Your task to perform on an android device: make emails show in primary in the gmail app Image 0: 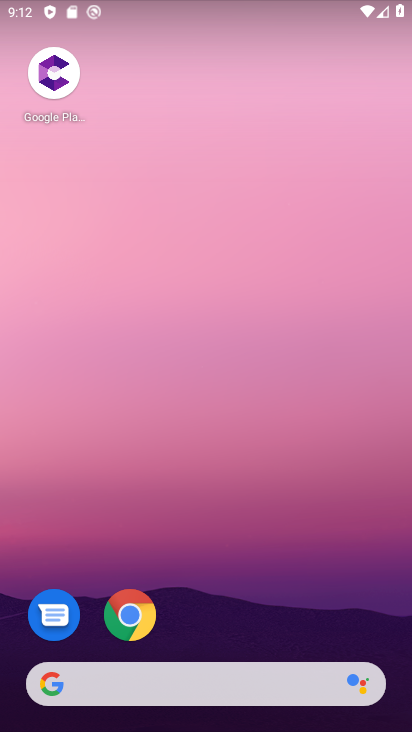
Step 0: drag from (229, 588) to (293, 73)
Your task to perform on an android device: make emails show in primary in the gmail app Image 1: 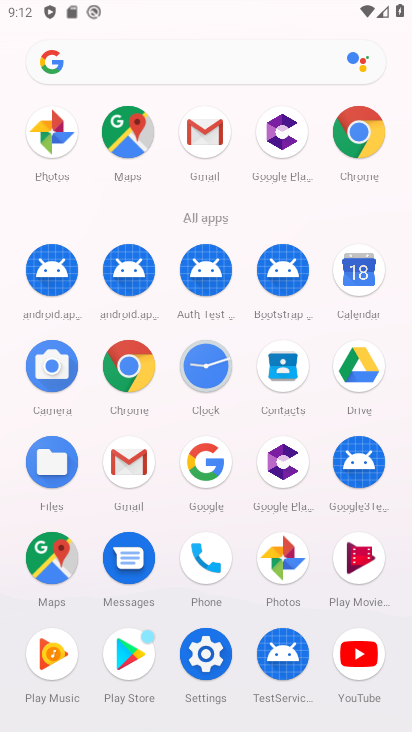
Step 1: click (195, 120)
Your task to perform on an android device: make emails show in primary in the gmail app Image 2: 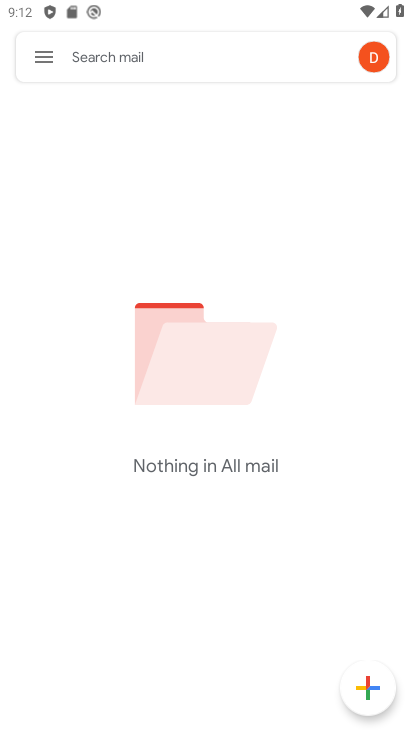
Step 2: click (45, 46)
Your task to perform on an android device: make emails show in primary in the gmail app Image 3: 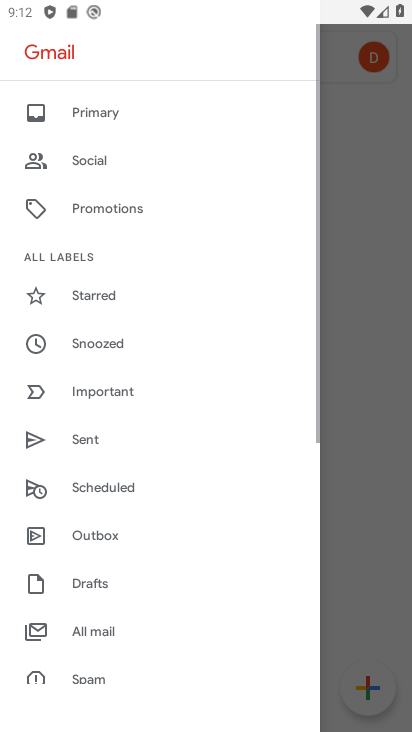
Step 3: drag from (121, 661) to (176, 157)
Your task to perform on an android device: make emails show in primary in the gmail app Image 4: 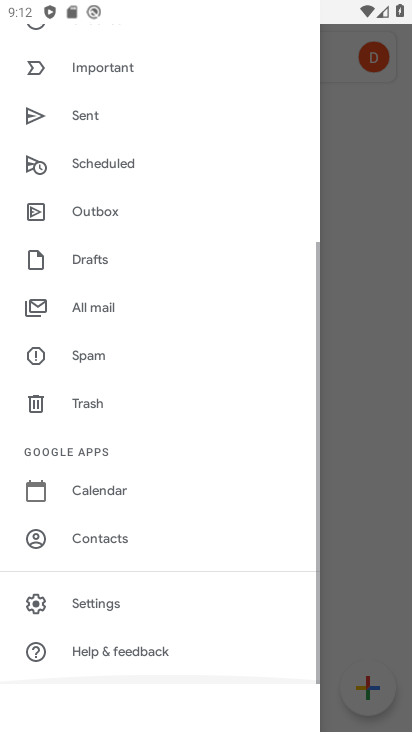
Step 4: click (93, 595)
Your task to perform on an android device: make emails show in primary in the gmail app Image 5: 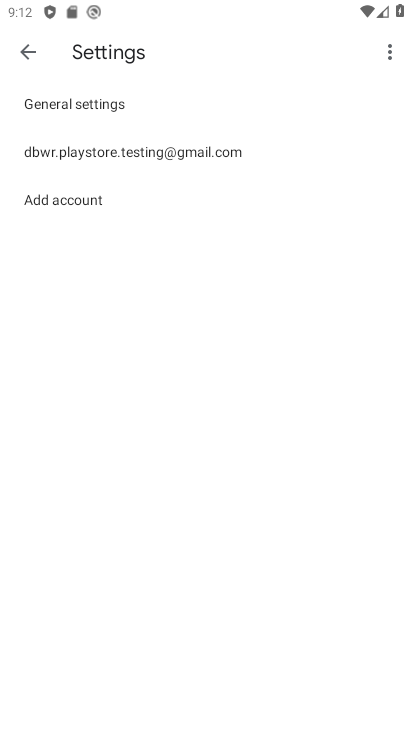
Step 5: click (104, 145)
Your task to perform on an android device: make emails show in primary in the gmail app Image 6: 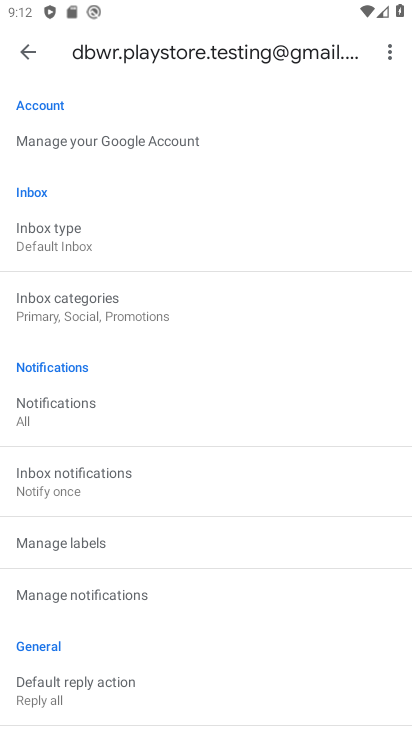
Step 6: click (78, 320)
Your task to perform on an android device: make emails show in primary in the gmail app Image 7: 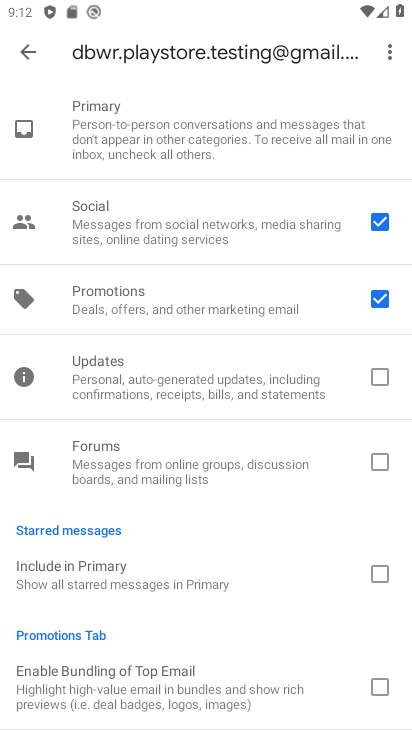
Step 7: click (388, 302)
Your task to perform on an android device: make emails show in primary in the gmail app Image 8: 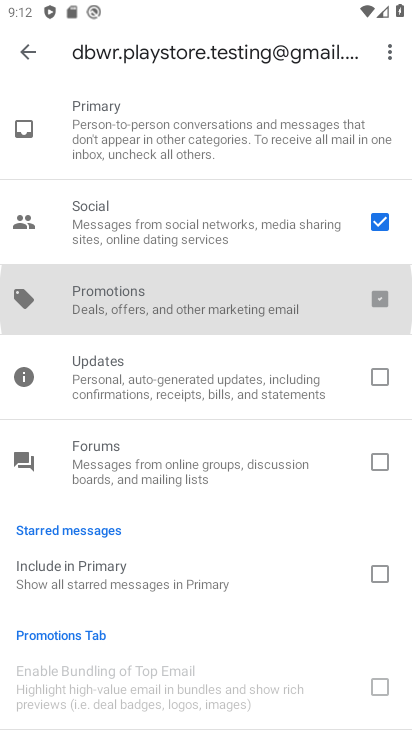
Step 8: click (375, 230)
Your task to perform on an android device: make emails show in primary in the gmail app Image 9: 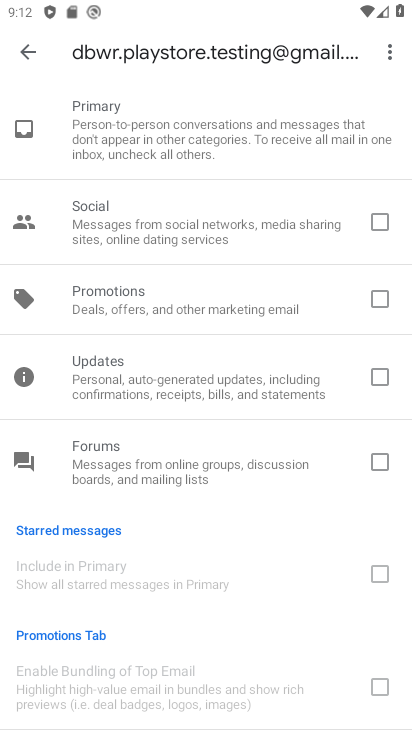
Step 9: task complete